Your task to perform on an android device: Go to internet settings Image 0: 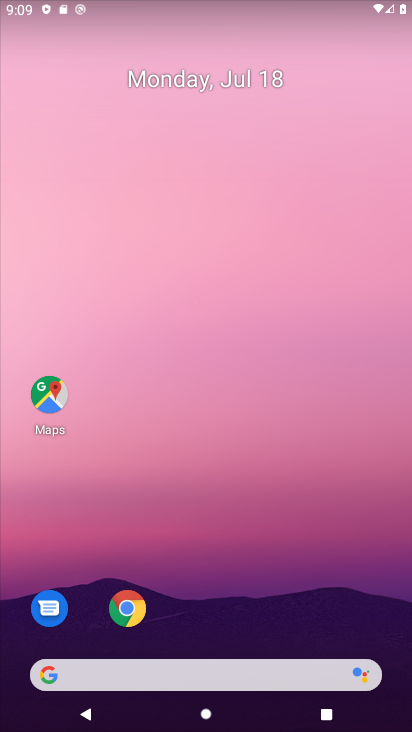
Step 0: drag from (271, 681) to (179, 172)
Your task to perform on an android device: Go to internet settings Image 1: 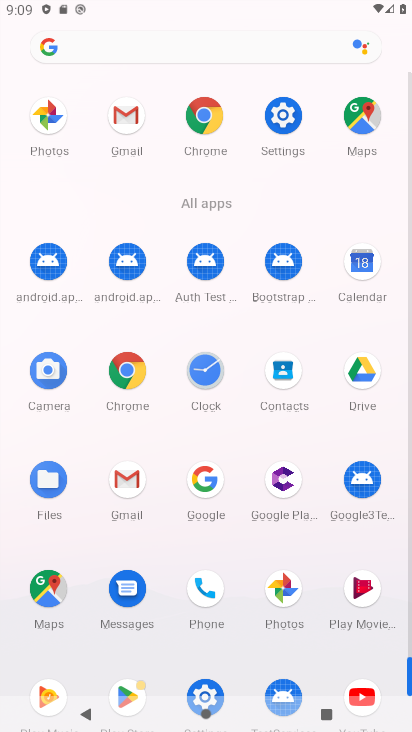
Step 1: click (285, 107)
Your task to perform on an android device: Go to internet settings Image 2: 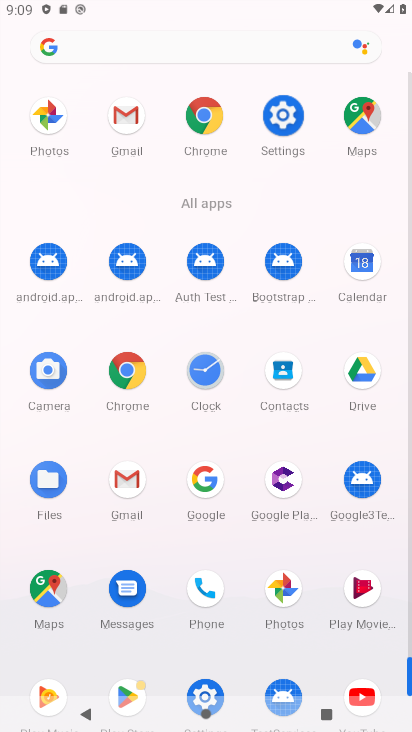
Step 2: click (286, 108)
Your task to perform on an android device: Go to internet settings Image 3: 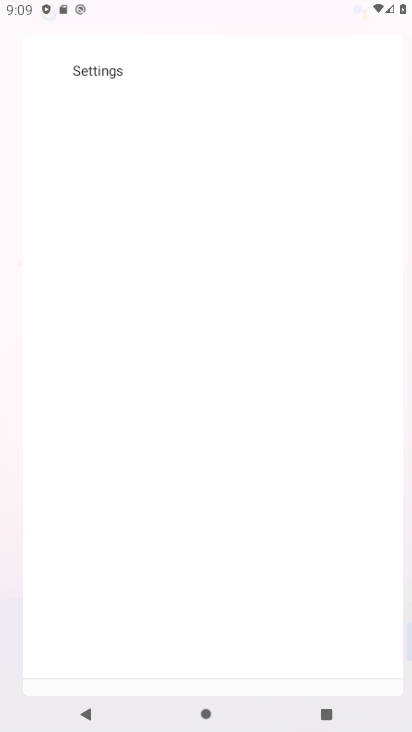
Step 3: click (286, 108)
Your task to perform on an android device: Go to internet settings Image 4: 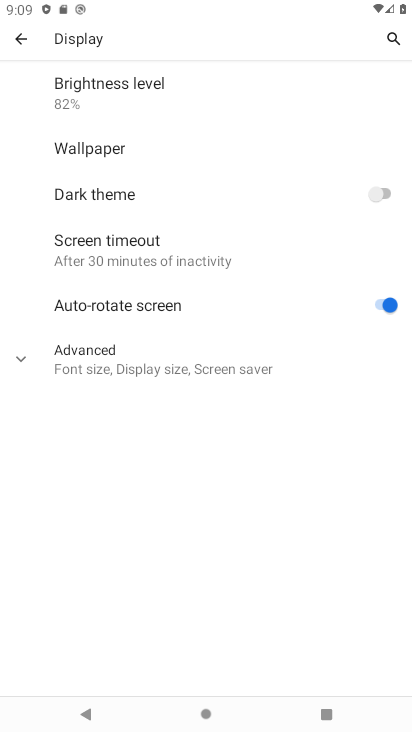
Step 4: click (17, 34)
Your task to perform on an android device: Go to internet settings Image 5: 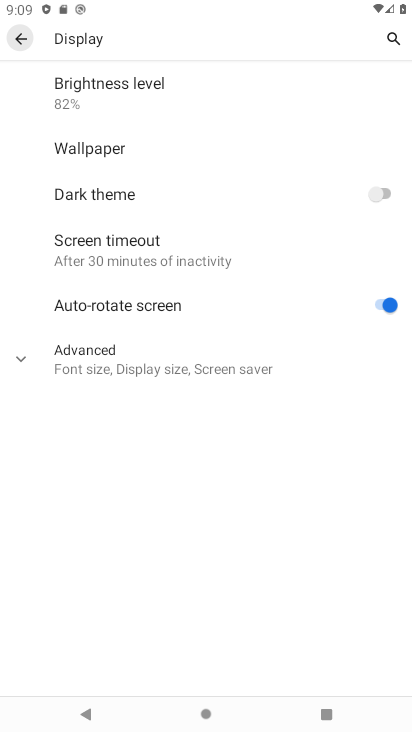
Step 5: click (20, 33)
Your task to perform on an android device: Go to internet settings Image 6: 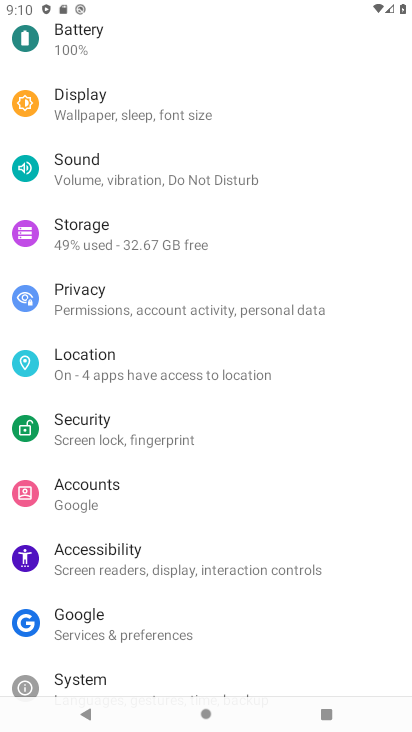
Step 6: drag from (85, 64) to (141, 409)
Your task to perform on an android device: Go to internet settings Image 7: 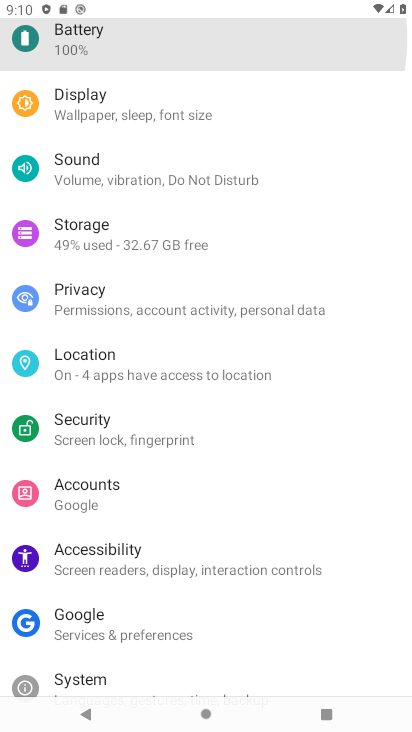
Step 7: drag from (137, 207) to (162, 383)
Your task to perform on an android device: Go to internet settings Image 8: 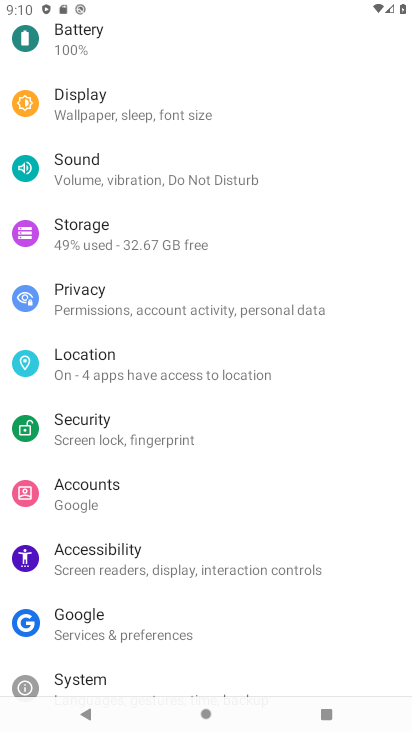
Step 8: drag from (117, 89) to (204, 410)
Your task to perform on an android device: Go to internet settings Image 9: 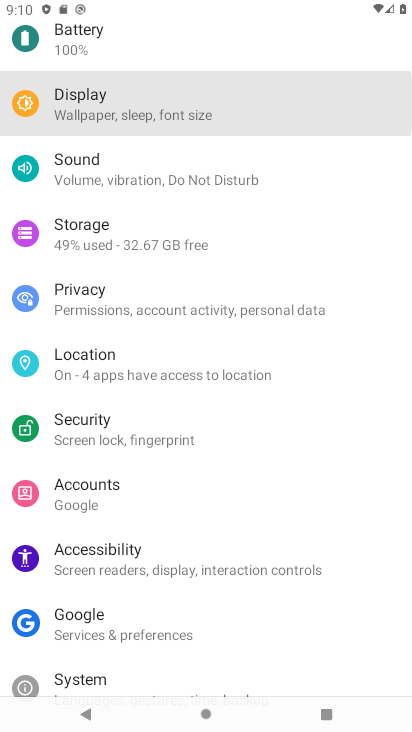
Step 9: drag from (167, 127) to (247, 410)
Your task to perform on an android device: Go to internet settings Image 10: 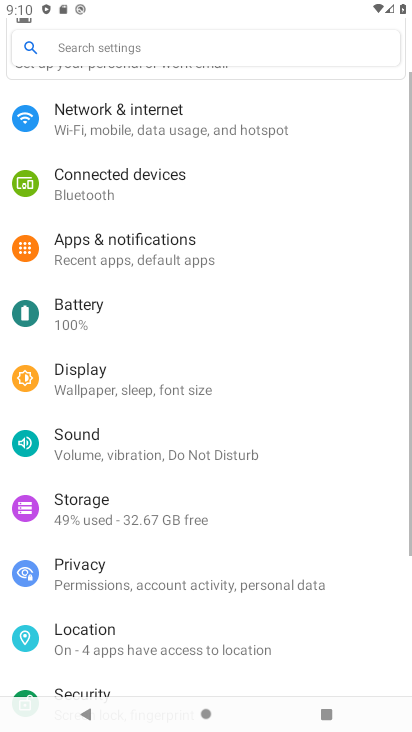
Step 10: drag from (211, 196) to (243, 474)
Your task to perform on an android device: Go to internet settings Image 11: 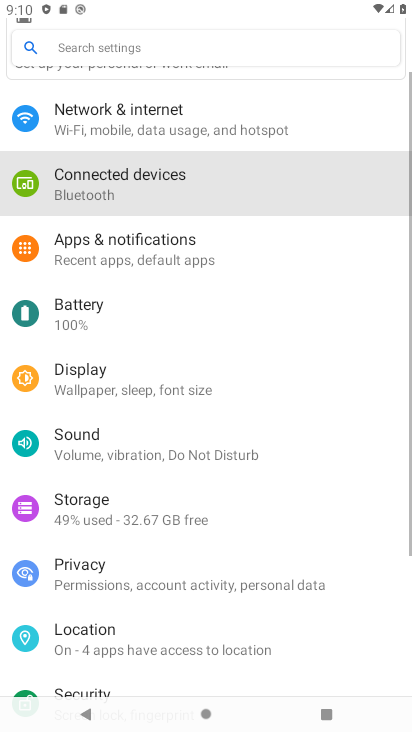
Step 11: drag from (195, 197) to (231, 528)
Your task to perform on an android device: Go to internet settings Image 12: 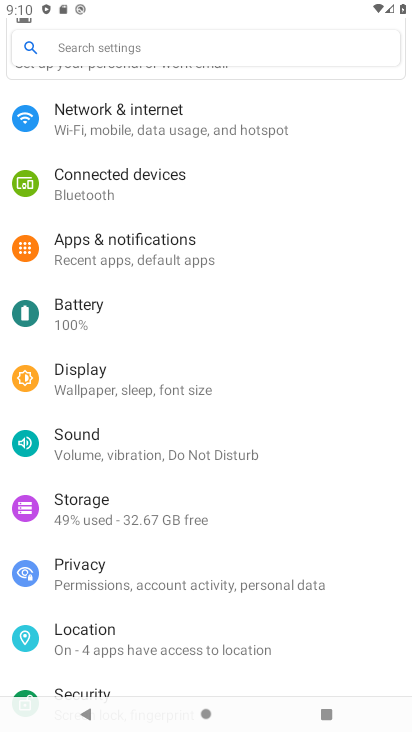
Step 12: click (146, 111)
Your task to perform on an android device: Go to internet settings Image 13: 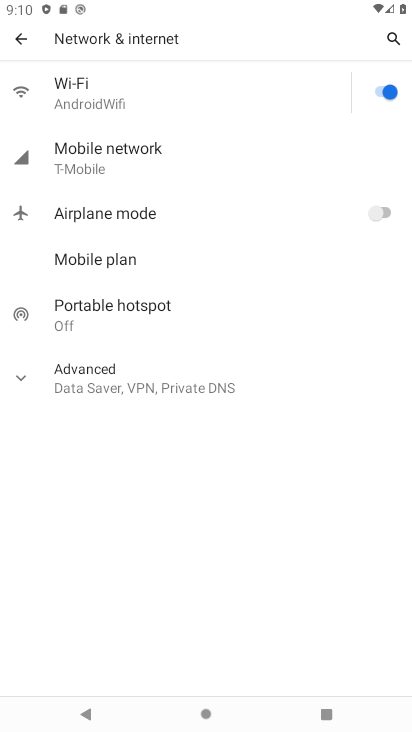
Step 13: click (91, 154)
Your task to perform on an android device: Go to internet settings Image 14: 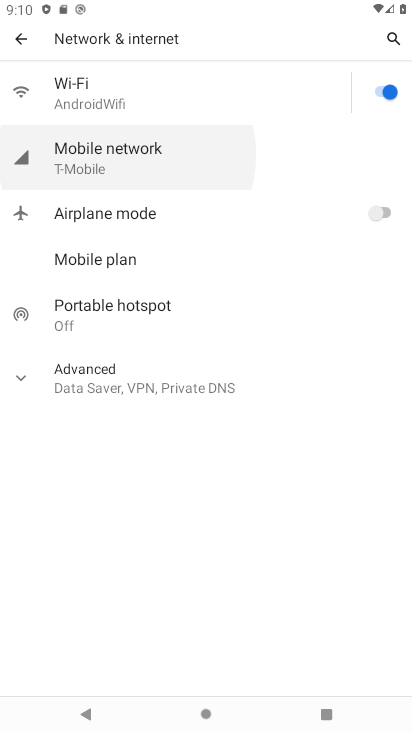
Step 14: click (91, 154)
Your task to perform on an android device: Go to internet settings Image 15: 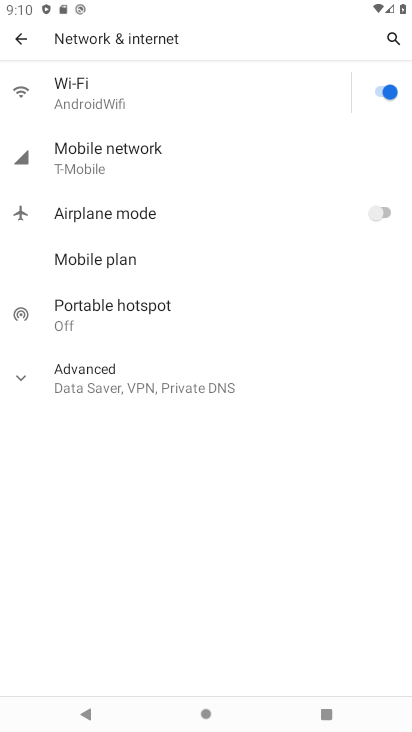
Step 15: click (91, 154)
Your task to perform on an android device: Go to internet settings Image 16: 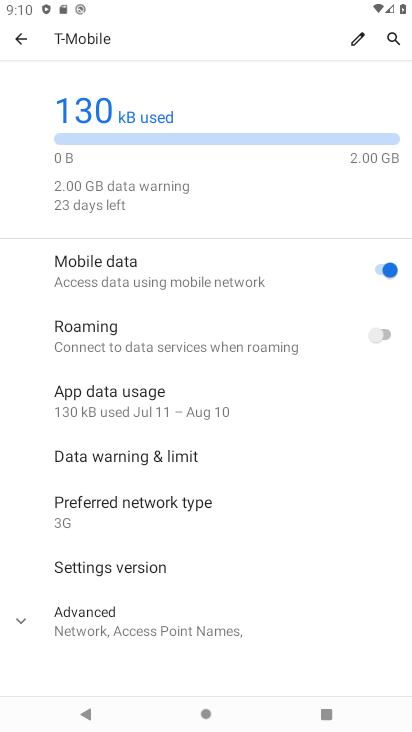
Step 16: click (19, 47)
Your task to perform on an android device: Go to internet settings Image 17: 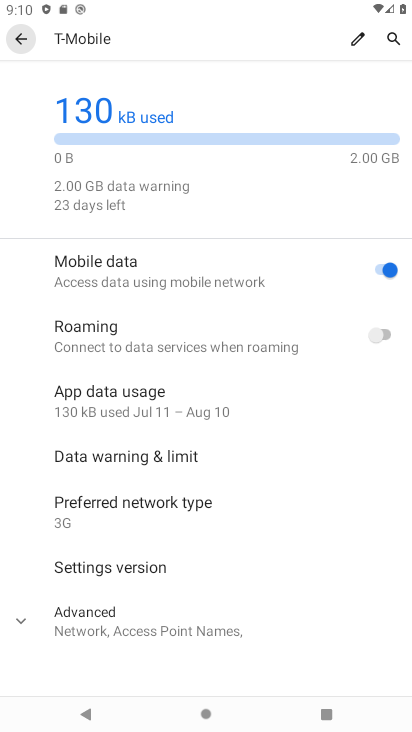
Step 17: click (18, 48)
Your task to perform on an android device: Go to internet settings Image 18: 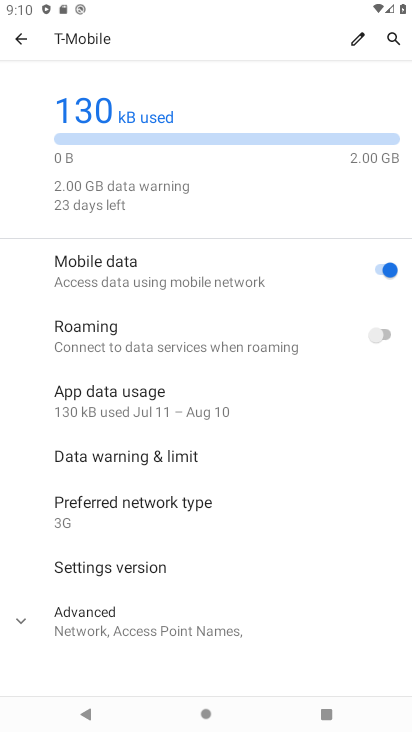
Step 18: click (17, 49)
Your task to perform on an android device: Go to internet settings Image 19: 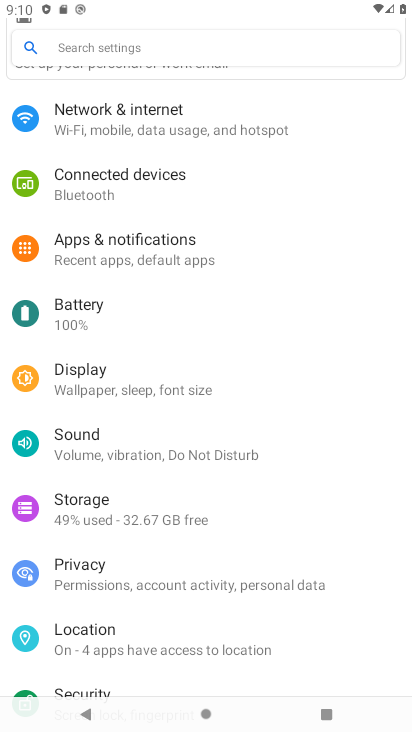
Step 19: press back button
Your task to perform on an android device: Go to internet settings Image 20: 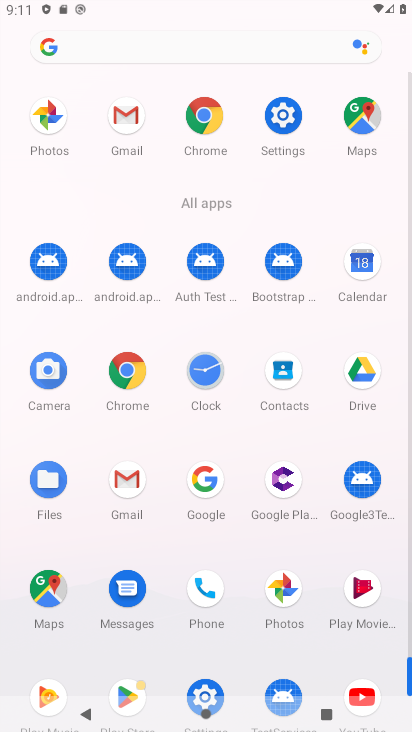
Step 20: click (272, 122)
Your task to perform on an android device: Go to internet settings Image 21: 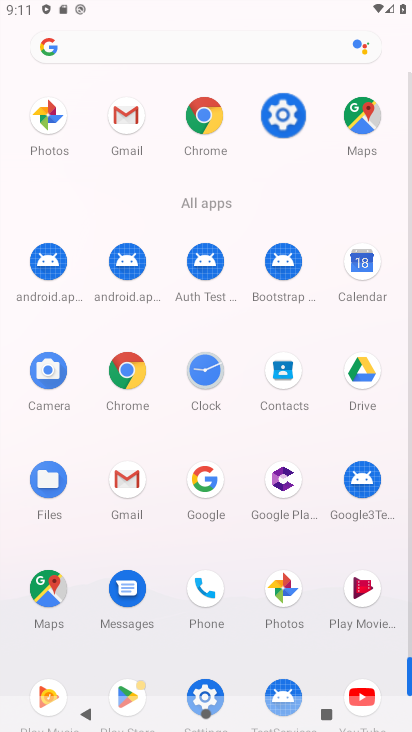
Step 21: click (279, 124)
Your task to perform on an android device: Go to internet settings Image 22: 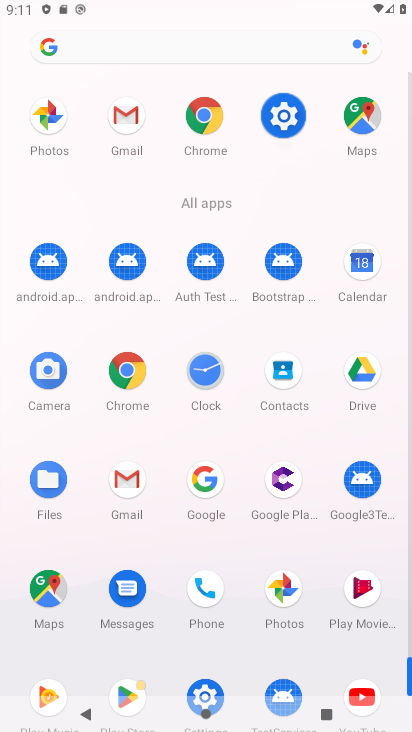
Step 22: click (279, 126)
Your task to perform on an android device: Go to internet settings Image 23: 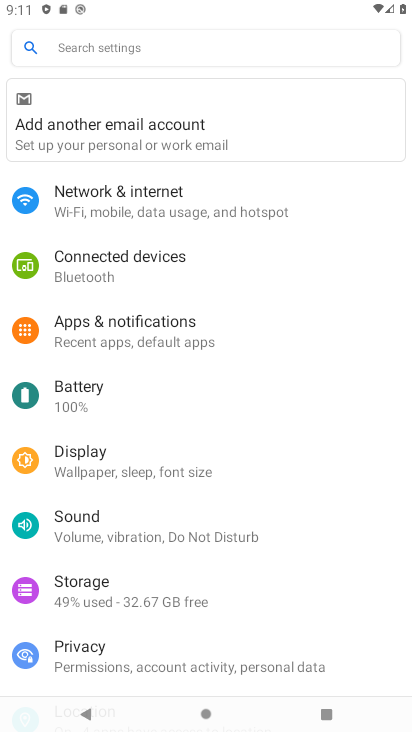
Step 23: click (136, 184)
Your task to perform on an android device: Go to internet settings Image 24: 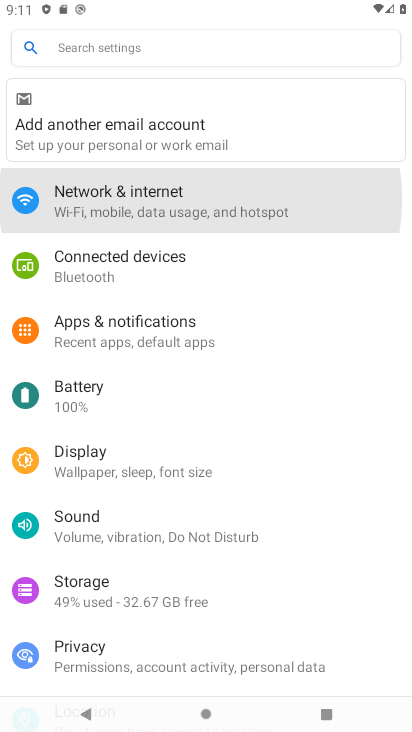
Step 24: drag from (140, 195) to (401, 242)
Your task to perform on an android device: Go to internet settings Image 25: 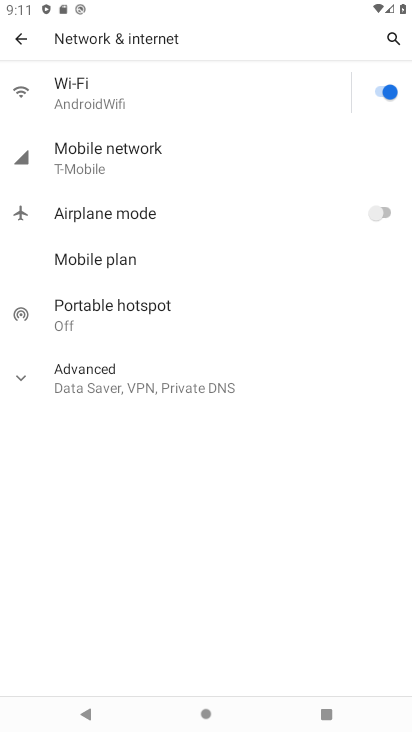
Step 25: click (56, 95)
Your task to perform on an android device: Go to internet settings Image 26: 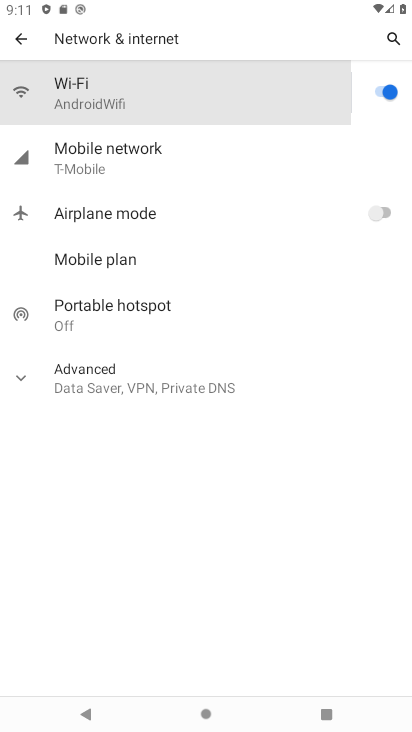
Step 26: click (109, 78)
Your task to perform on an android device: Go to internet settings Image 27: 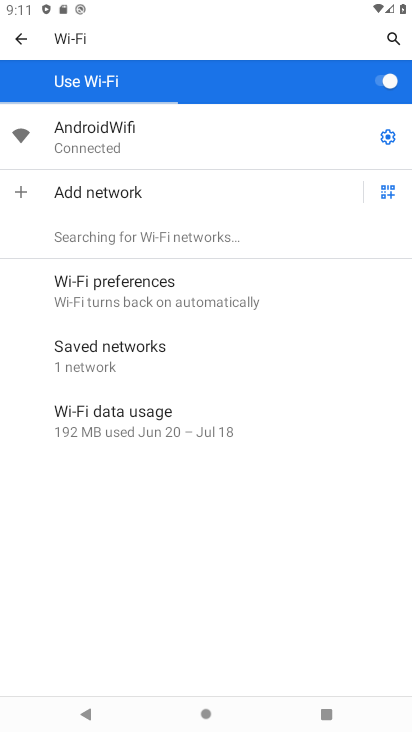
Step 27: task complete